Your task to perform on an android device: see creations saved in the google photos Image 0: 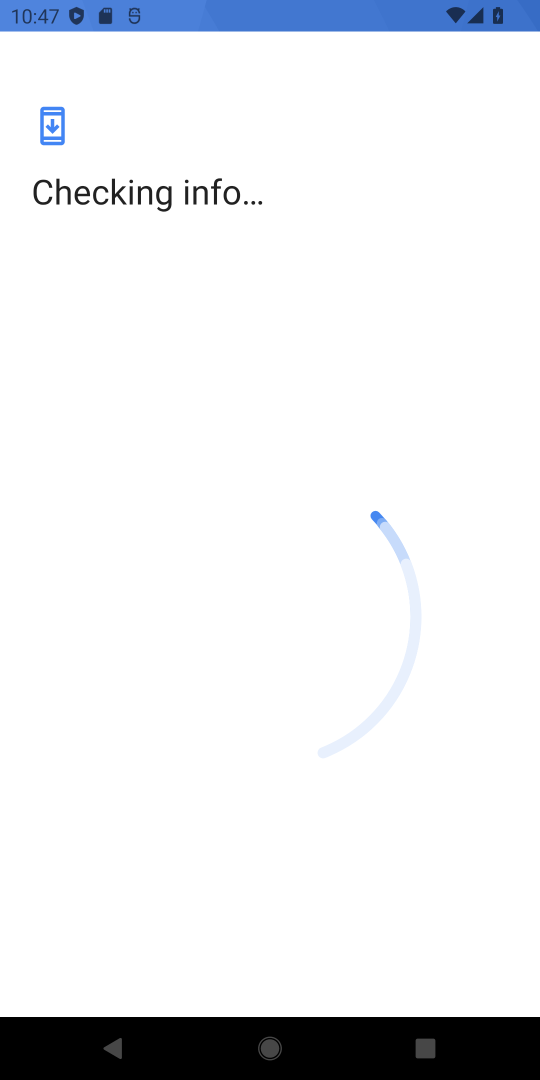
Step 0: press home button
Your task to perform on an android device: see creations saved in the google photos Image 1: 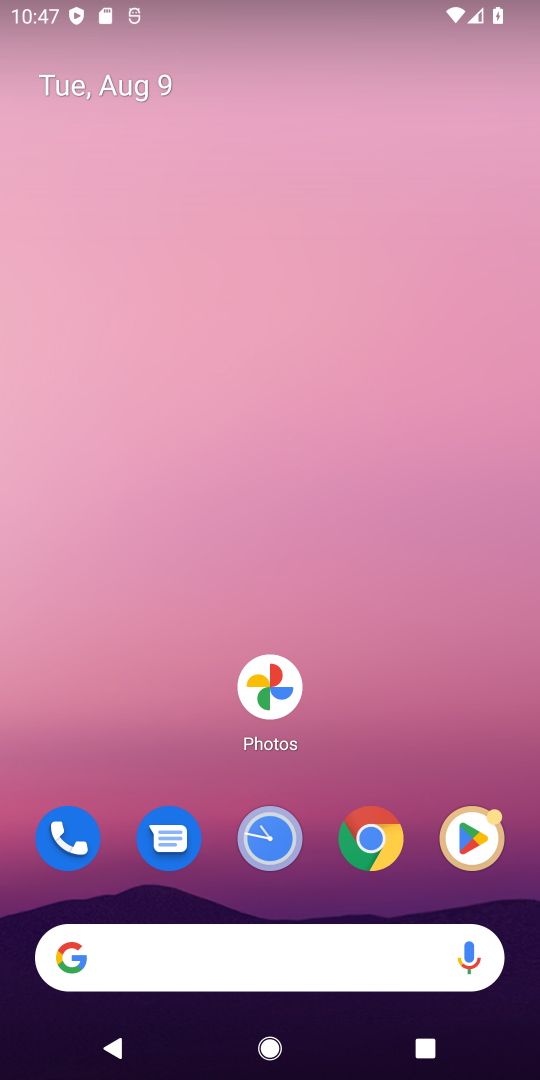
Step 1: drag from (89, 736) to (535, 311)
Your task to perform on an android device: see creations saved in the google photos Image 2: 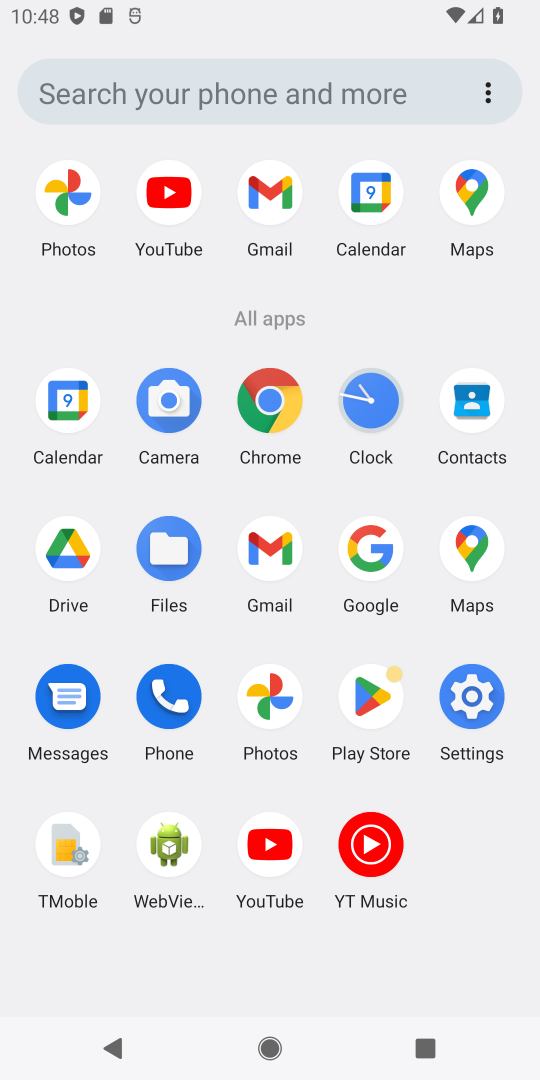
Step 2: click (291, 702)
Your task to perform on an android device: see creations saved in the google photos Image 3: 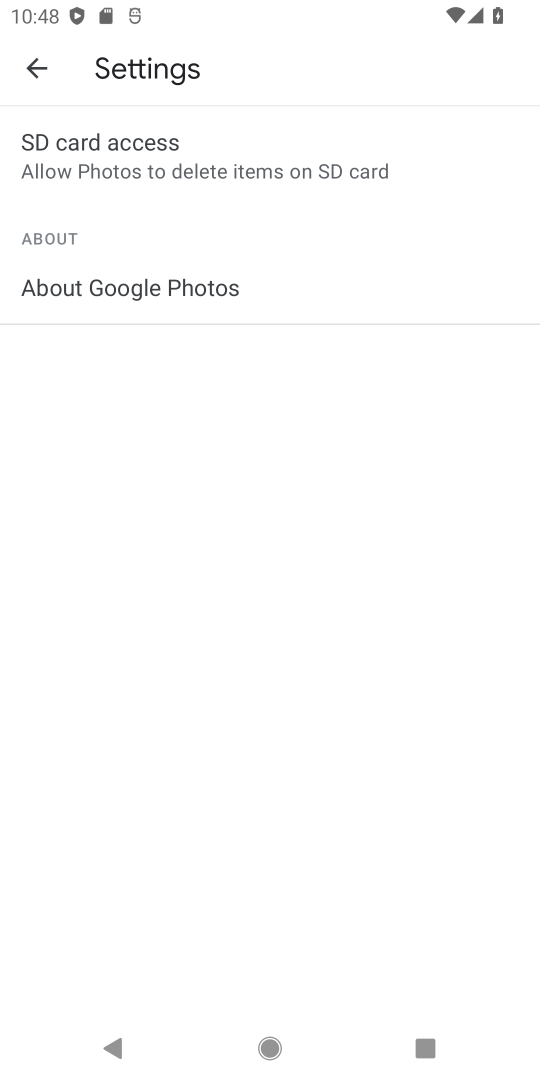
Step 3: click (37, 67)
Your task to perform on an android device: see creations saved in the google photos Image 4: 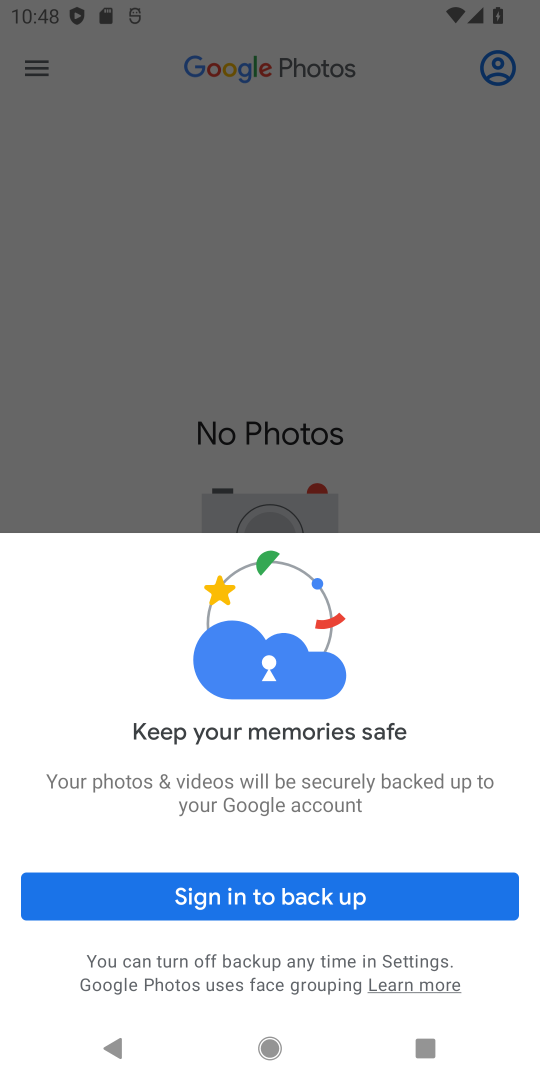
Step 4: click (164, 914)
Your task to perform on an android device: see creations saved in the google photos Image 5: 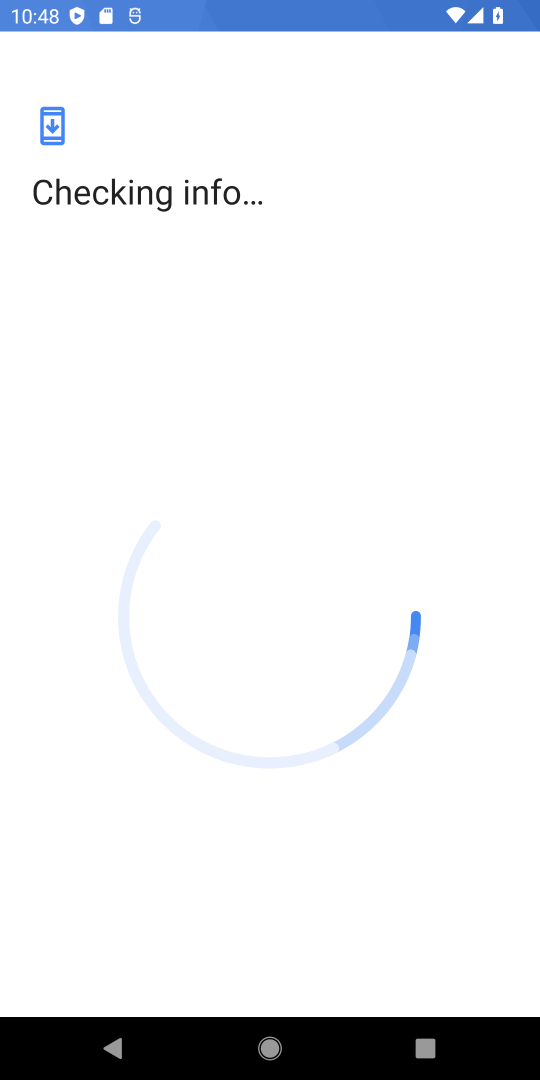
Step 5: task complete